Your task to perform on an android device: How do I get to the nearest Home Depot? Image 0: 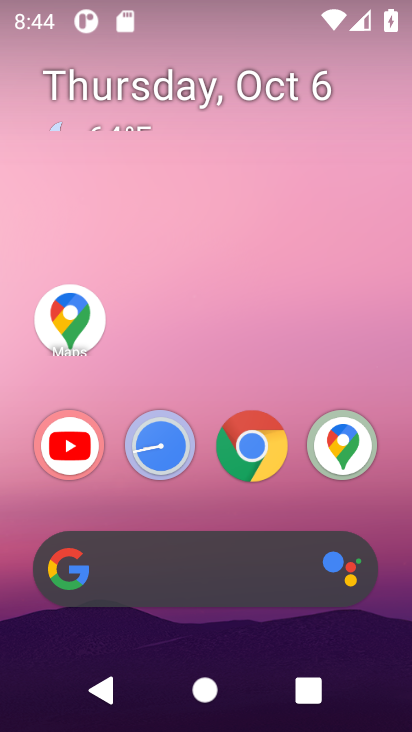
Step 0: click (171, 576)
Your task to perform on an android device: How do I get to the nearest Home Depot? Image 1: 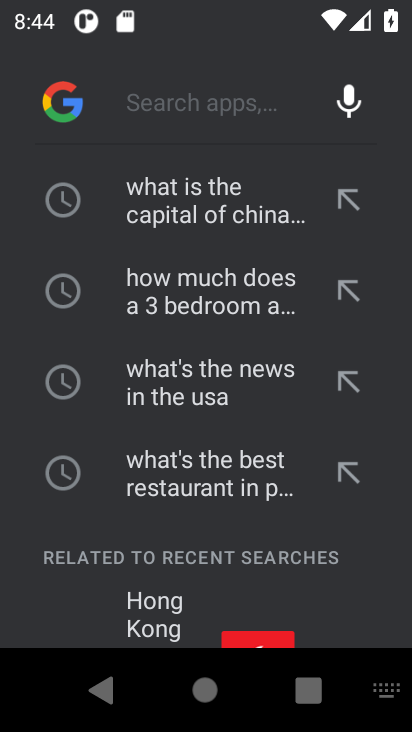
Step 1: type "How do I get to the nearest Home Depot?"
Your task to perform on an android device: How do I get to the nearest Home Depot? Image 2: 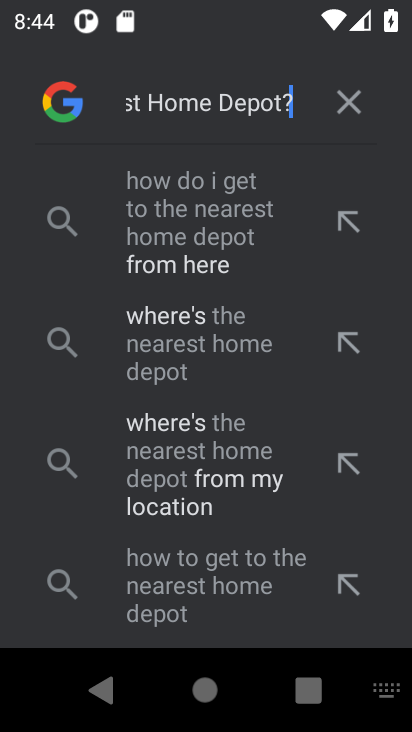
Step 2: click (217, 208)
Your task to perform on an android device: How do I get to the nearest Home Depot? Image 3: 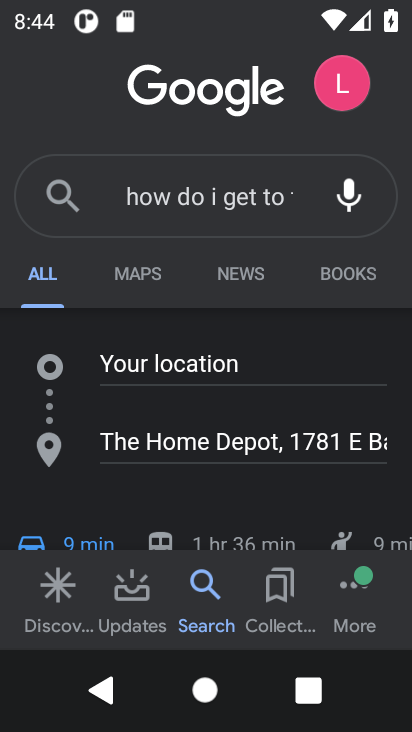
Step 3: task complete